Your task to perform on an android device: Go to display settings Image 0: 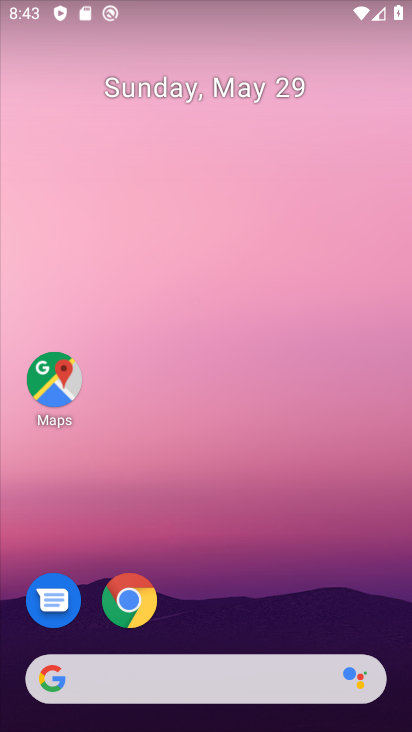
Step 0: drag from (231, 728) to (250, 39)
Your task to perform on an android device: Go to display settings Image 1: 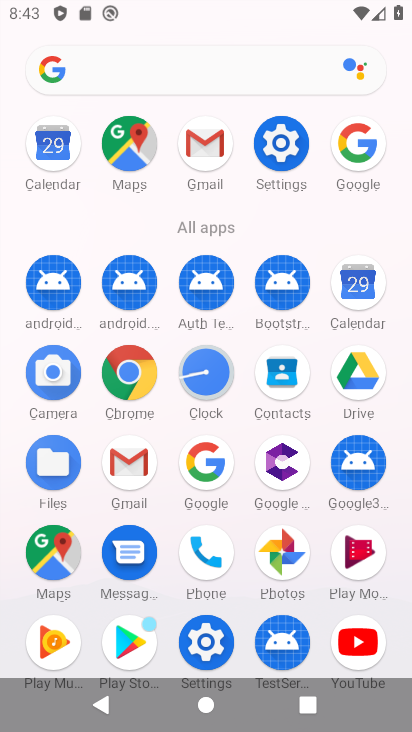
Step 1: click (275, 139)
Your task to perform on an android device: Go to display settings Image 2: 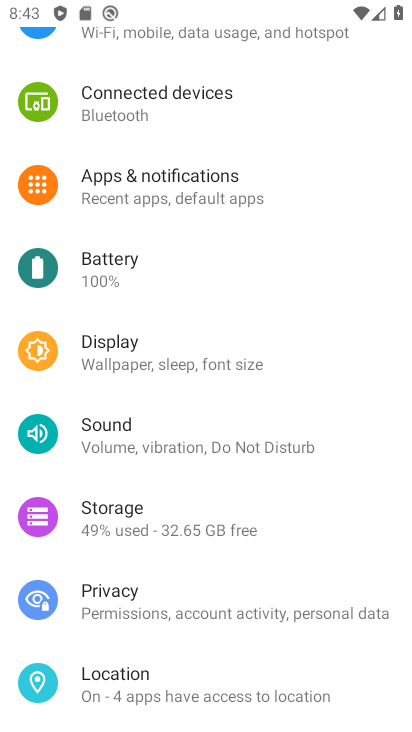
Step 2: click (117, 348)
Your task to perform on an android device: Go to display settings Image 3: 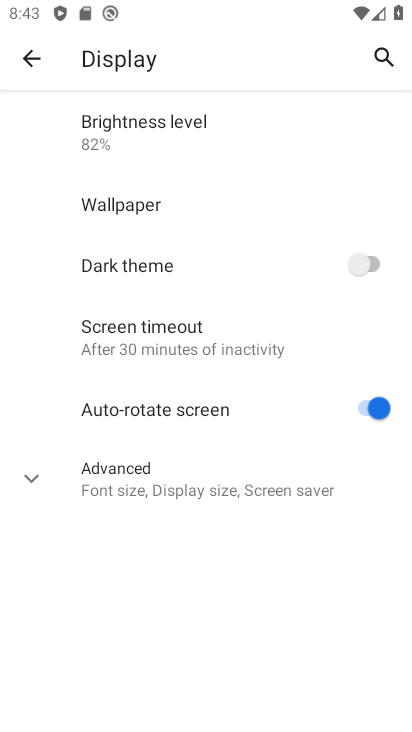
Step 3: task complete